Your task to perform on an android device: Open the phone app and click the voicemail tab. Image 0: 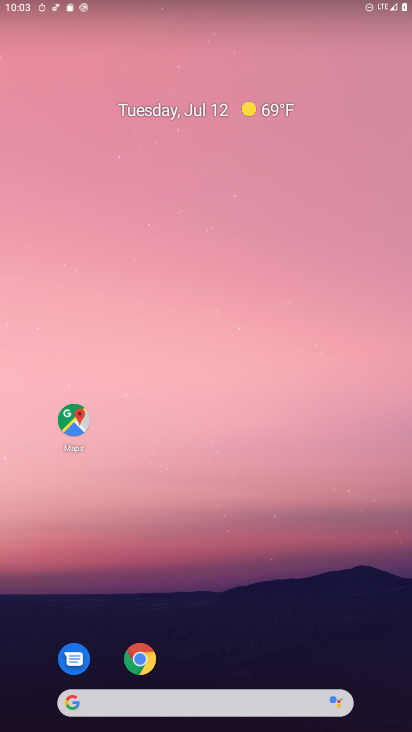
Step 0: drag from (218, 725) to (218, 89)
Your task to perform on an android device: Open the phone app and click the voicemail tab. Image 1: 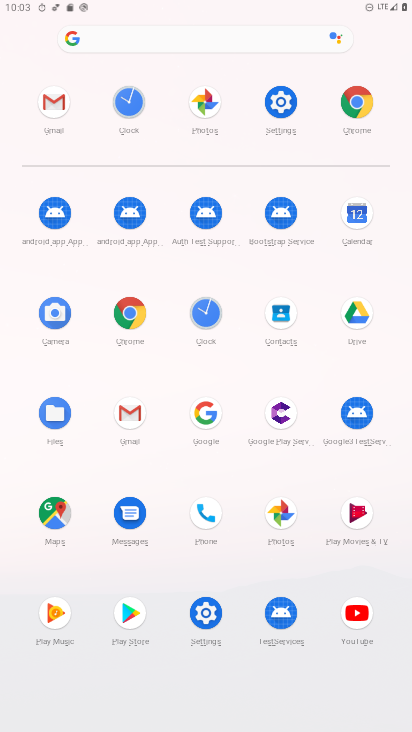
Step 1: click (203, 512)
Your task to perform on an android device: Open the phone app and click the voicemail tab. Image 2: 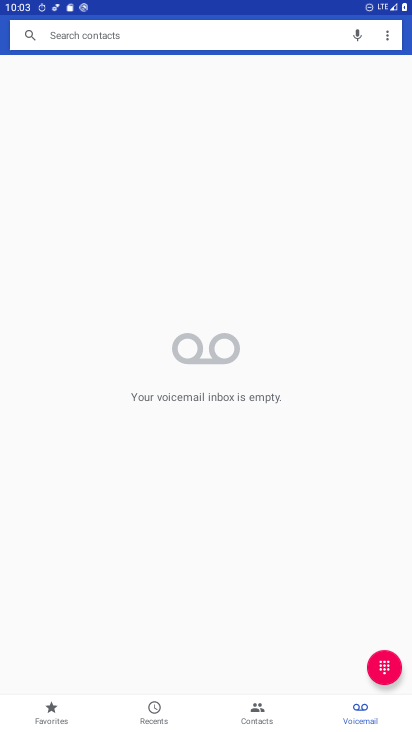
Step 2: task complete